Your task to perform on an android device: Open calendar and show me the third week of next month Image 0: 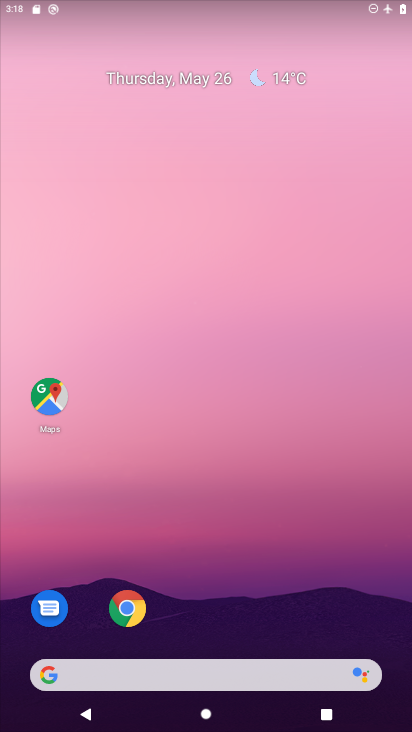
Step 0: drag from (272, 464) to (305, 123)
Your task to perform on an android device: Open calendar and show me the third week of next month Image 1: 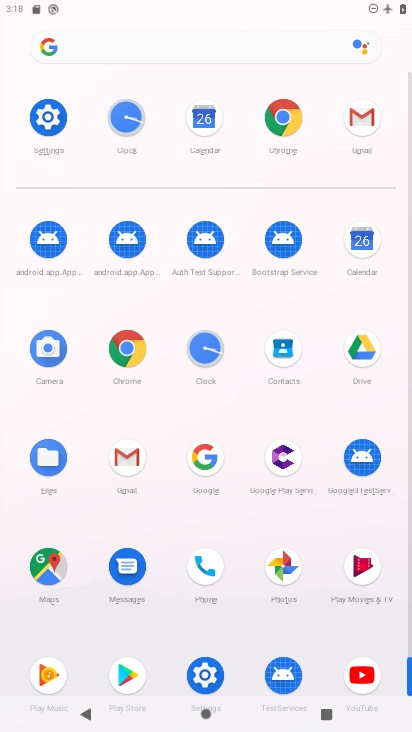
Step 1: click (201, 124)
Your task to perform on an android device: Open calendar and show me the third week of next month Image 2: 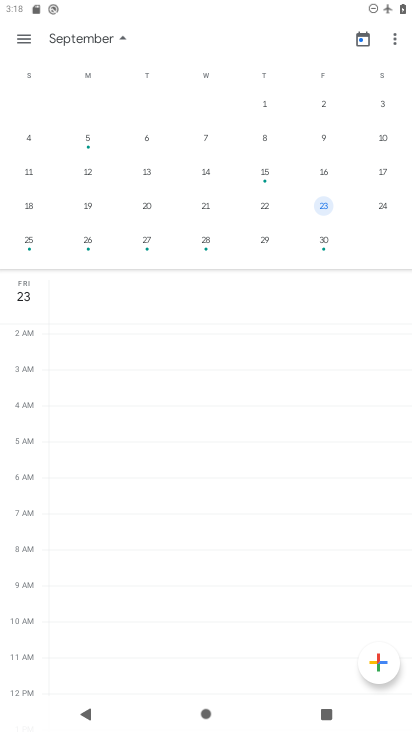
Step 2: drag from (304, 221) to (31, 156)
Your task to perform on an android device: Open calendar and show me the third week of next month Image 3: 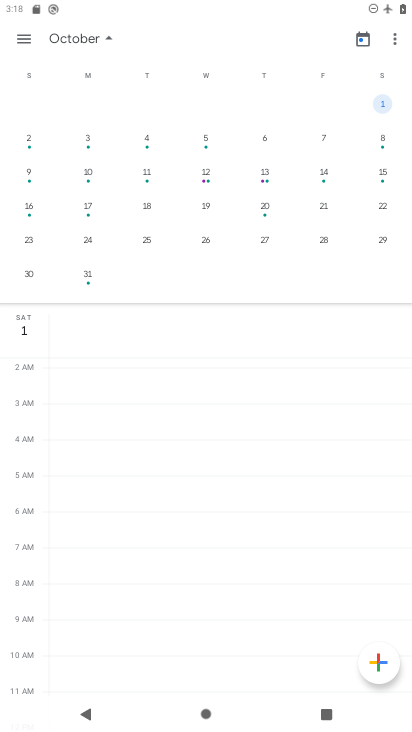
Step 3: click (324, 205)
Your task to perform on an android device: Open calendar and show me the third week of next month Image 4: 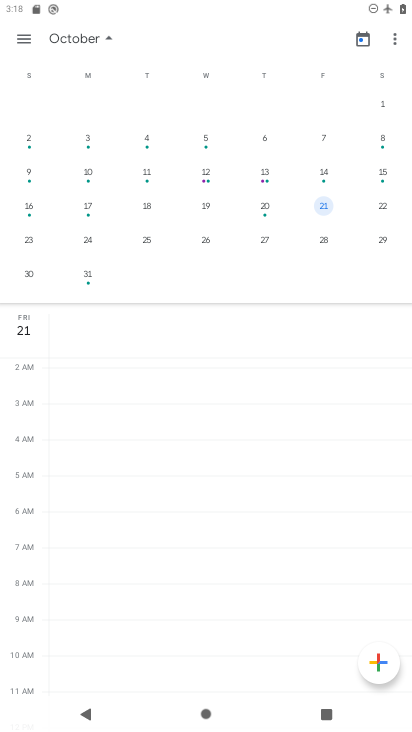
Step 4: task complete